Your task to perform on an android device: Search for alienware aurora on costco.com, select the first entry, and add it to the cart. Image 0: 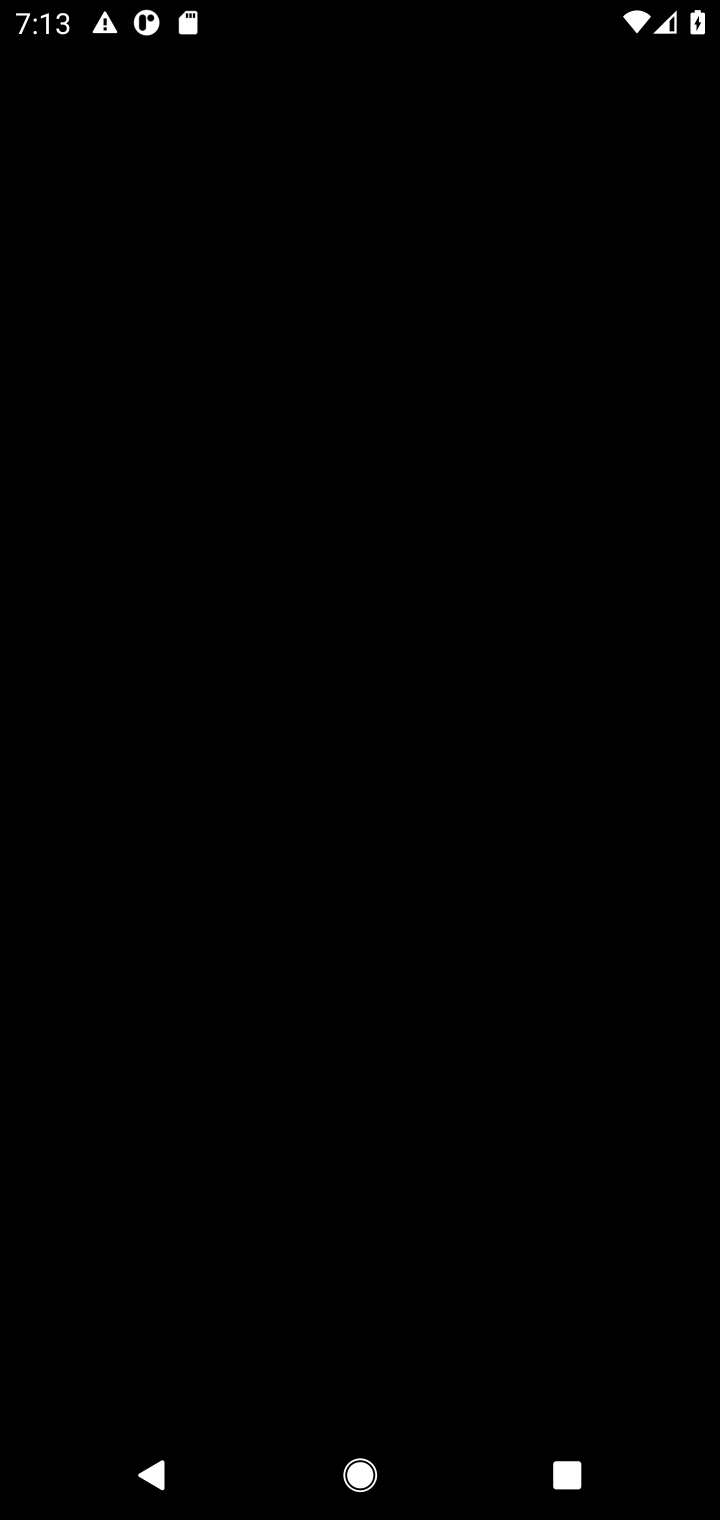
Step 0: press home button
Your task to perform on an android device: Search for alienware aurora on costco.com, select the first entry, and add it to the cart. Image 1: 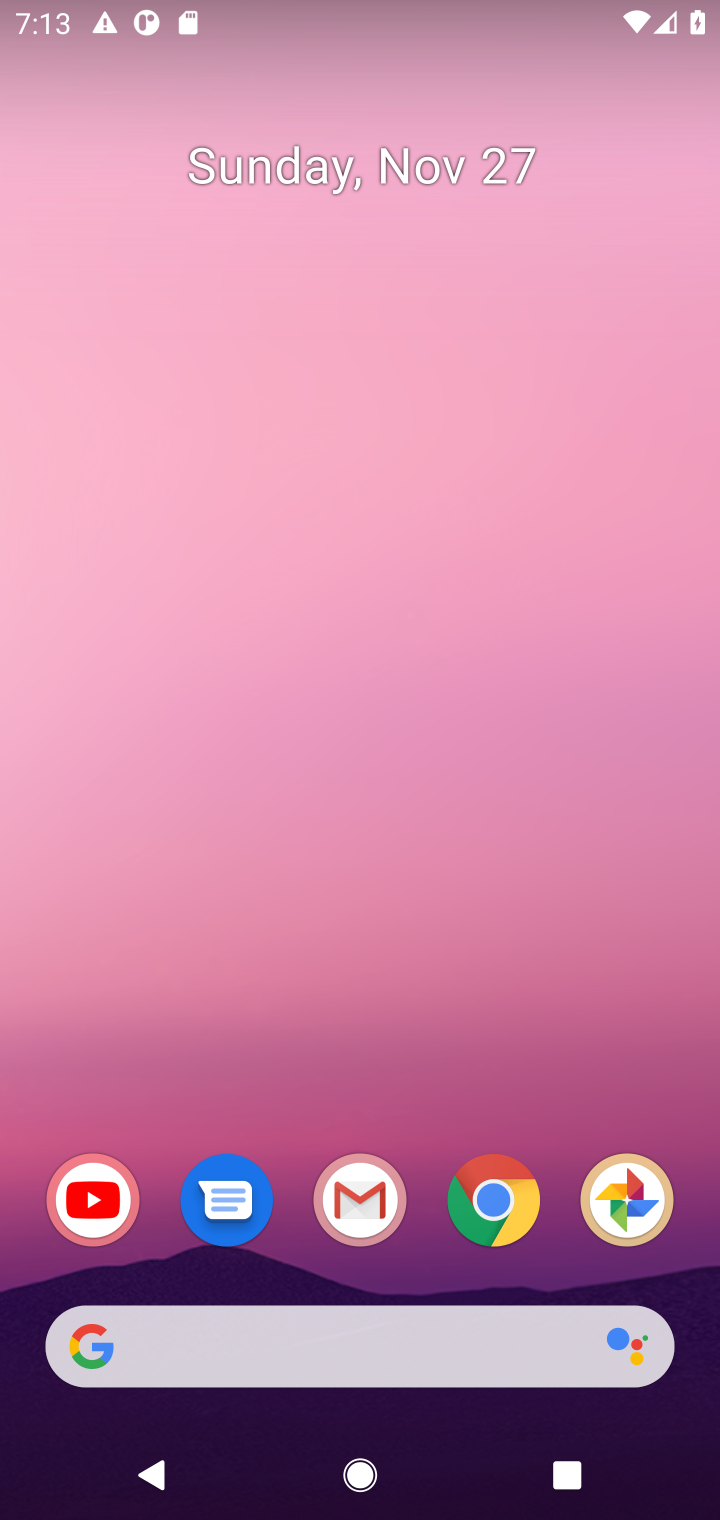
Step 1: click (480, 1207)
Your task to perform on an android device: Search for alienware aurora on costco.com, select the first entry, and add it to the cart. Image 2: 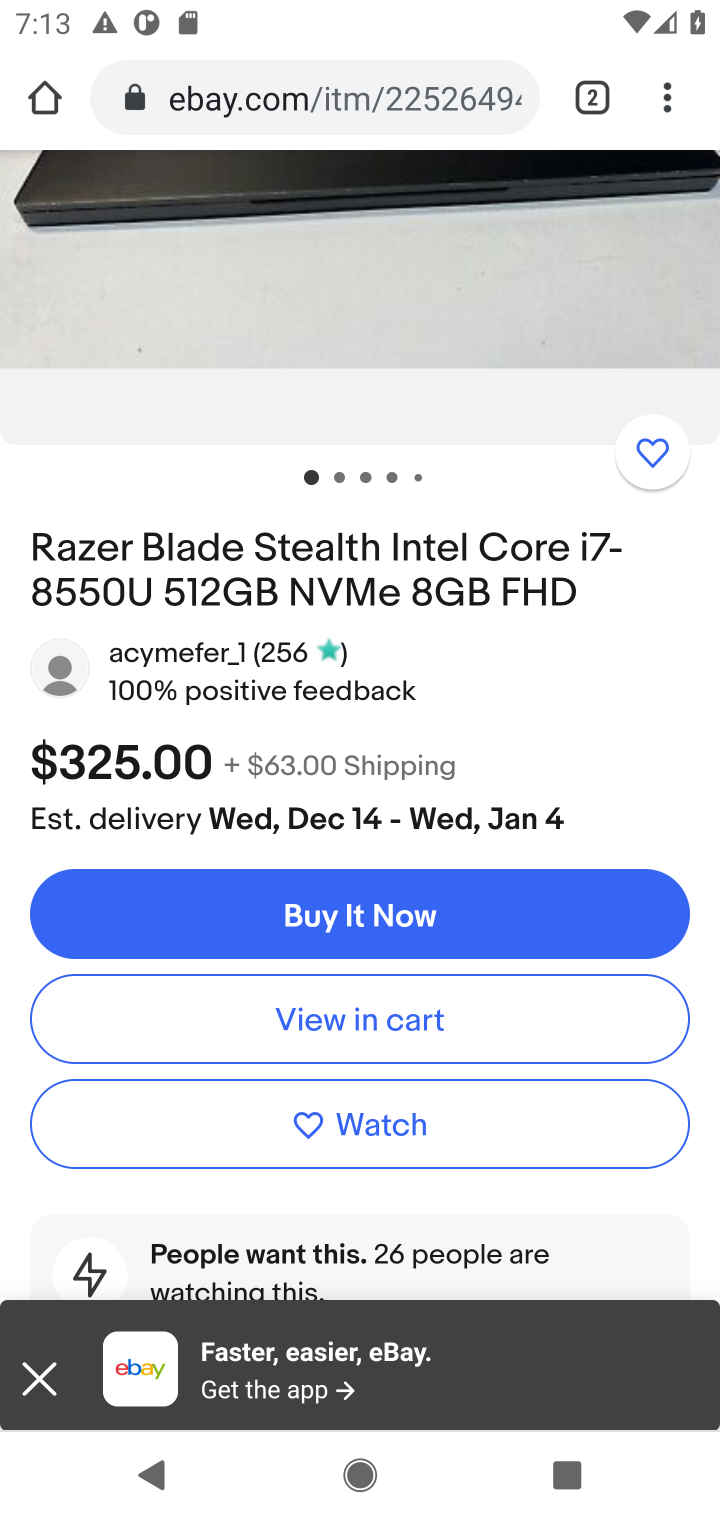
Step 2: click (404, 93)
Your task to perform on an android device: Search for alienware aurora on costco.com, select the first entry, and add it to the cart. Image 3: 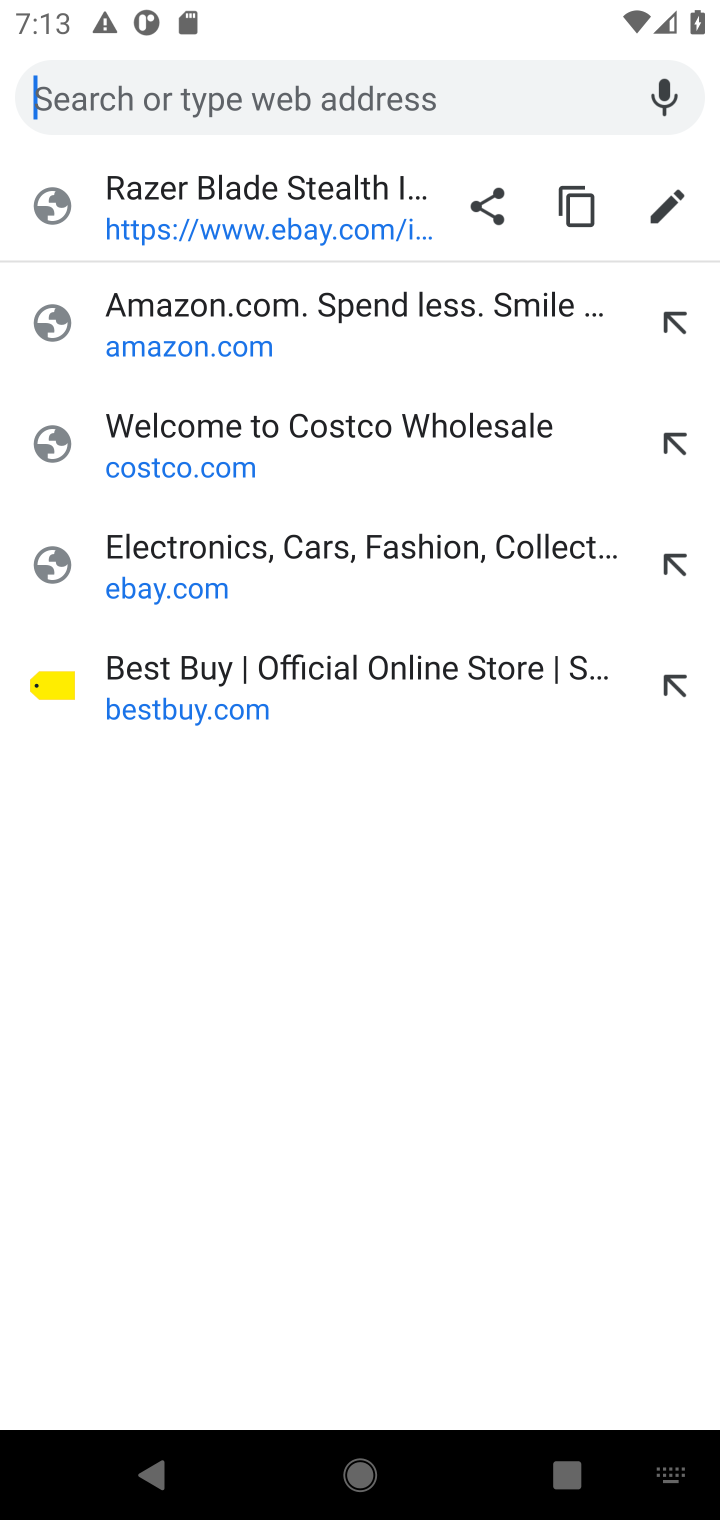
Step 3: click (156, 459)
Your task to perform on an android device: Search for alienware aurora on costco.com, select the first entry, and add it to the cart. Image 4: 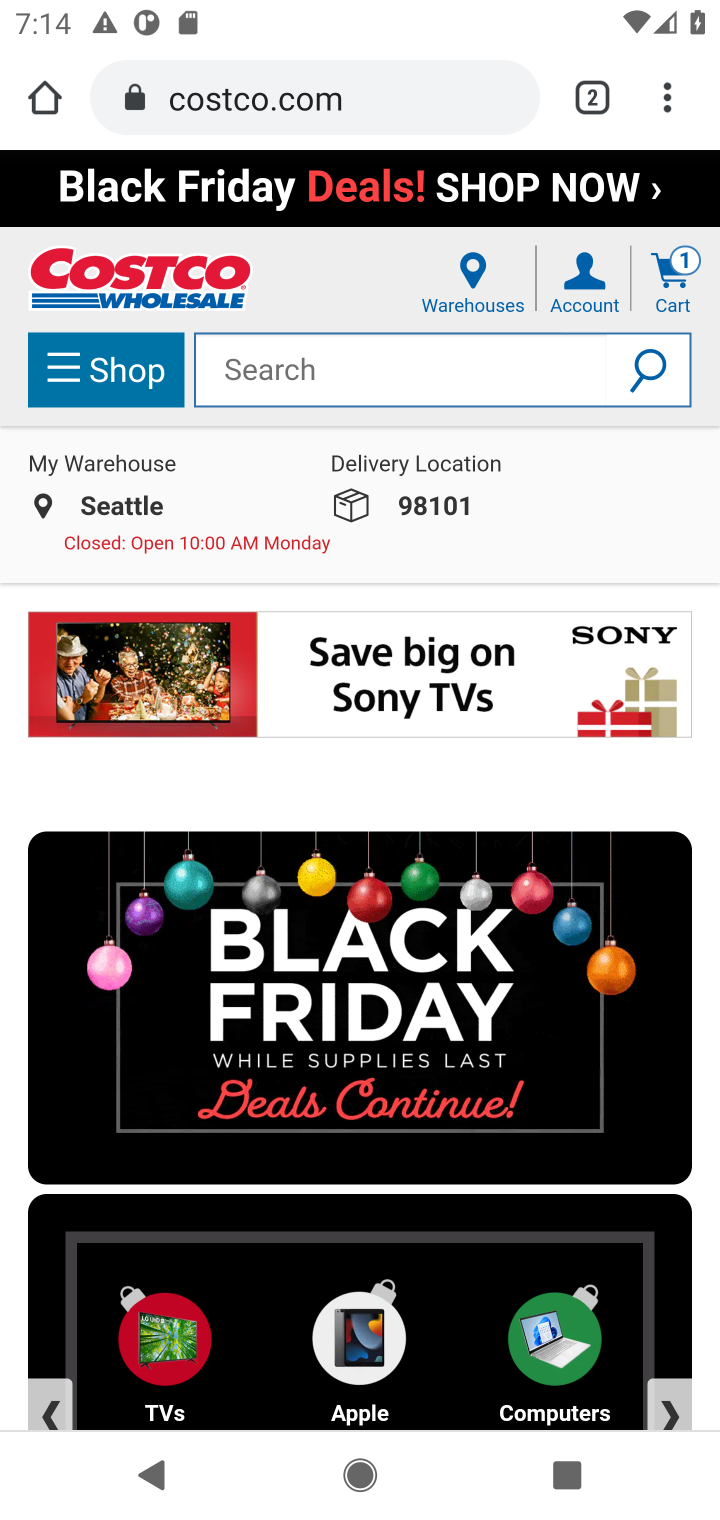
Step 4: click (265, 377)
Your task to perform on an android device: Search for alienware aurora on costco.com, select the first entry, and add it to the cart. Image 5: 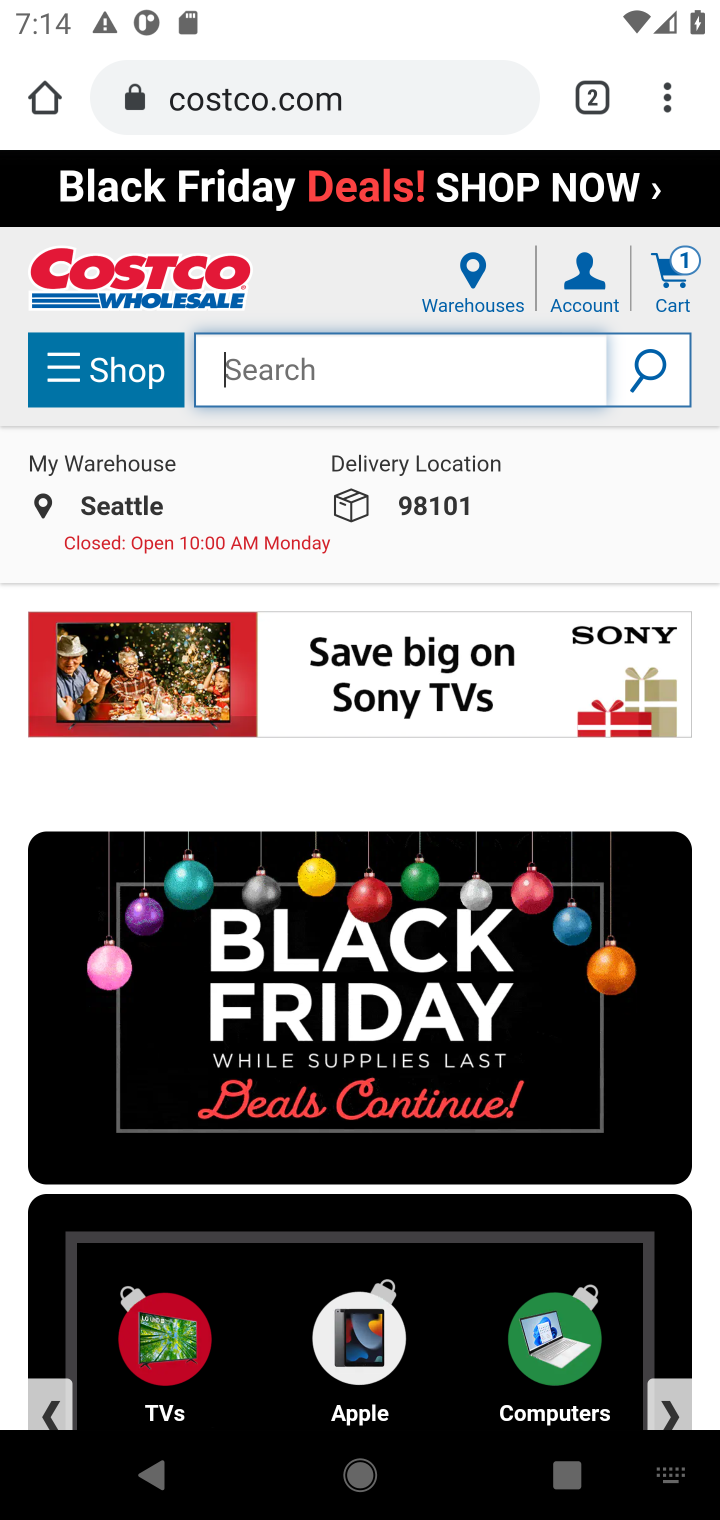
Step 5: type " alienware aurora"
Your task to perform on an android device: Search for alienware aurora on costco.com, select the first entry, and add it to the cart. Image 6: 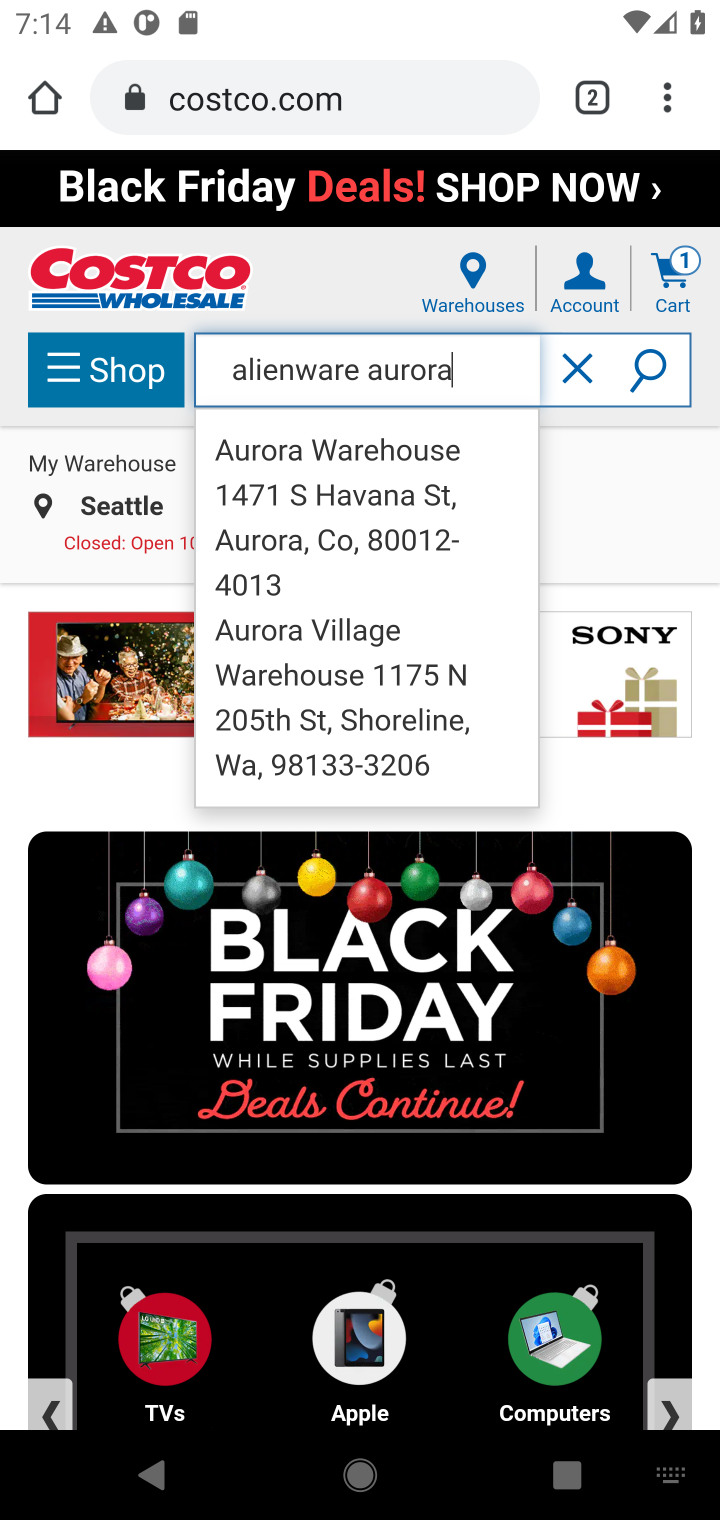
Step 6: click (655, 378)
Your task to perform on an android device: Search for alienware aurora on costco.com, select the first entry, and add it to the cart. Image 7: 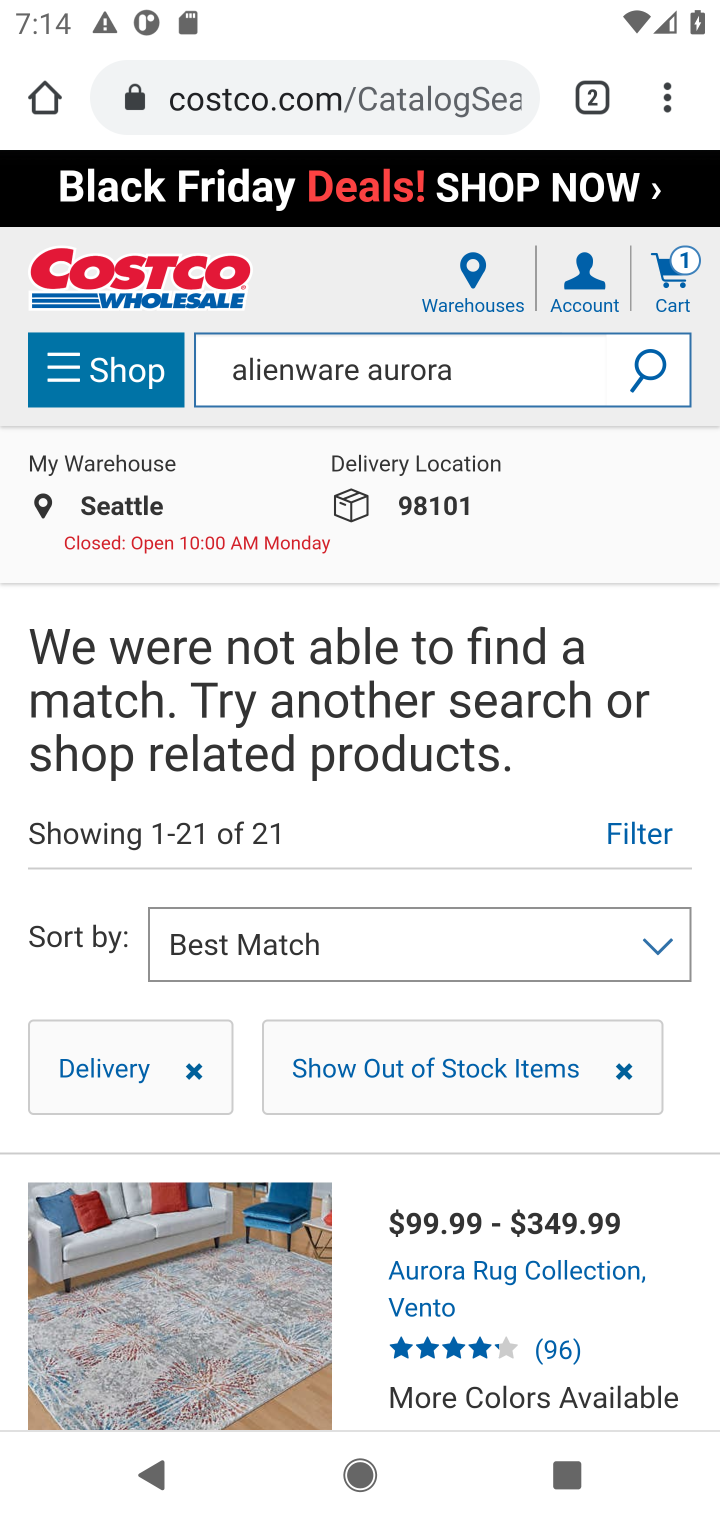
Step 7: task complete